Your task to perform on an android device: Open settings on Google Maps Image 0: 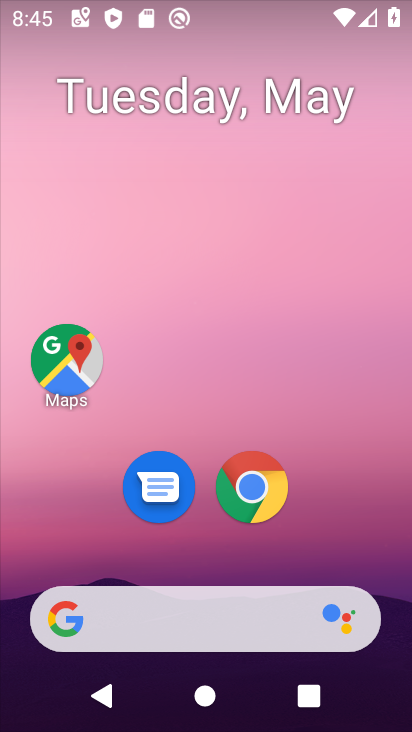
Step 0: drag from (376, 551) to (368, 204)
Your task to perform on an android device: Open settings on Google Maps Image 1: 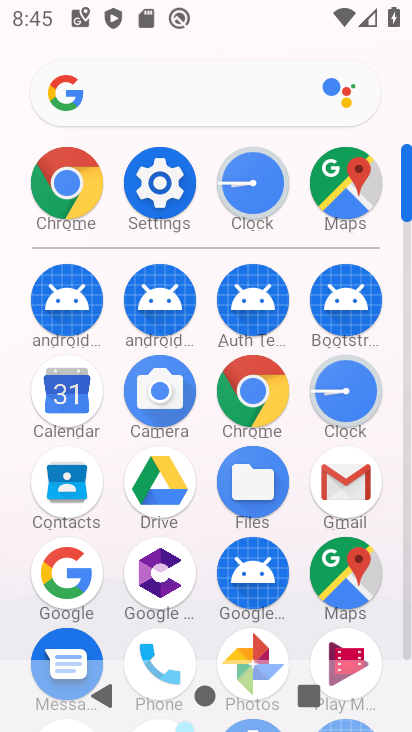
Step 1: click (359, 574)
Your task to perform on an android device: Open settings on Google Maps Image 2: 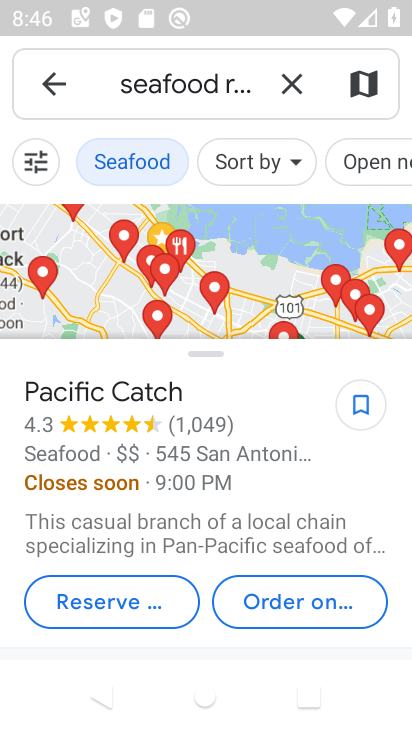
Step 2: press back button
Your task to perform on an android device: Open settings on Google Maps Image 3: 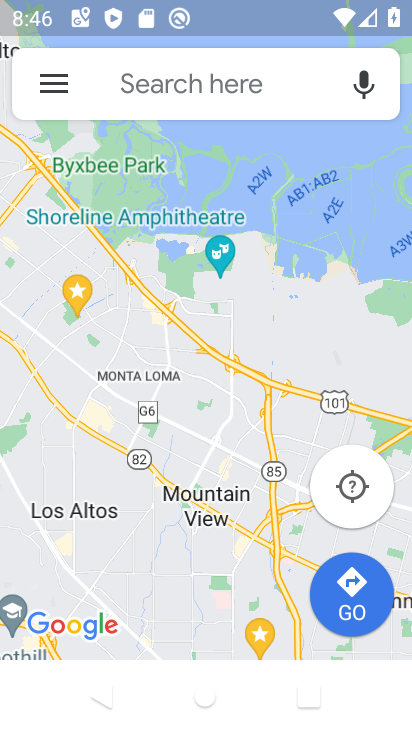
Step 3: click (59, 88)
Your task to perform on an android device: Open settings on Google Maps Image 4: 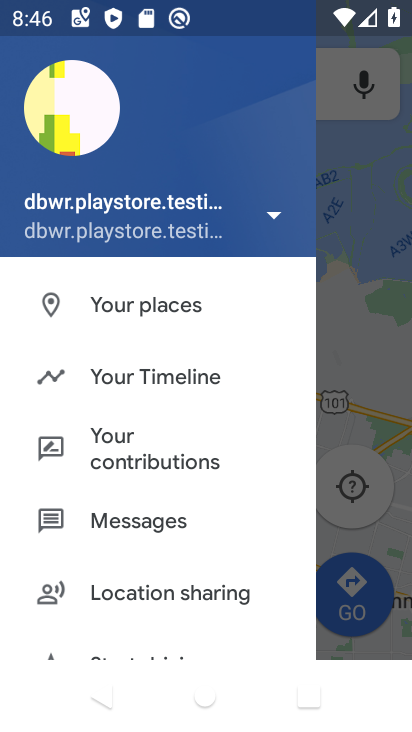
Step 4: drag from (241, 489) to (249, 377)
Your task to perform on an android device: Open settings on Google Maps Image 5: 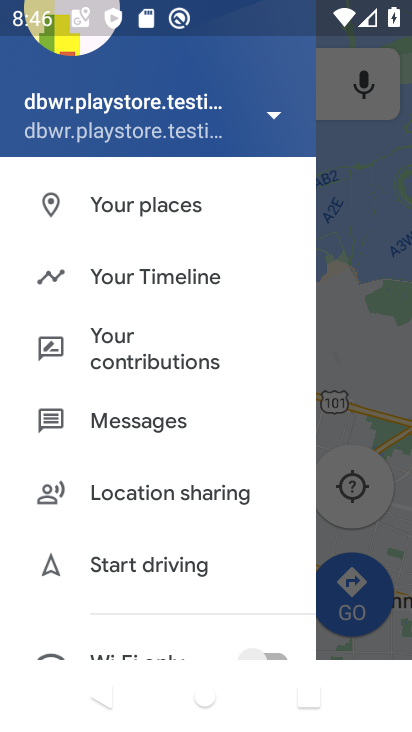
Step 5: drag from (265, 489) to (262, 369)
Your task to perform on an android device: Open settings on Google Maps Image 6: 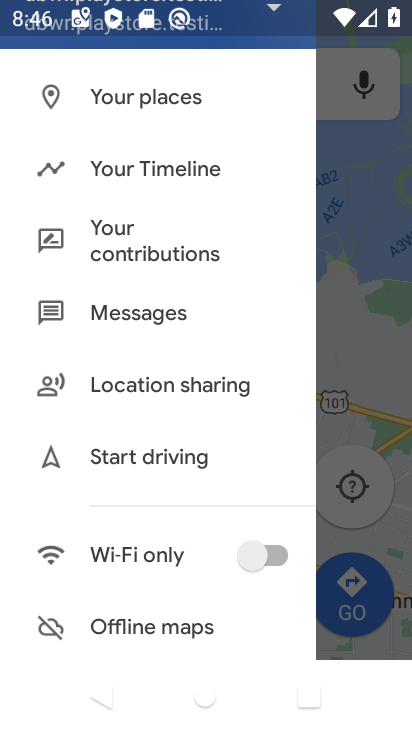
Step 6: drag from (246, 481) to (244, 393)
Your task to perform on an android device: Open settings on Google Maps Image 7: 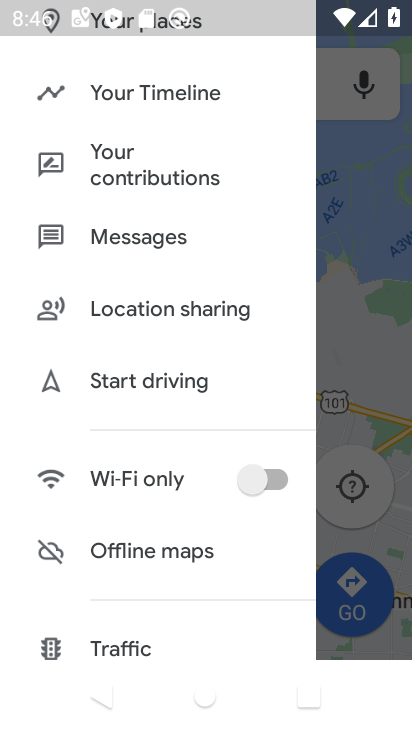
Step 7: drag from (215, 480) to (210, 366)
Your task to perform on an android device: Open settings on Google Maps Image 8: 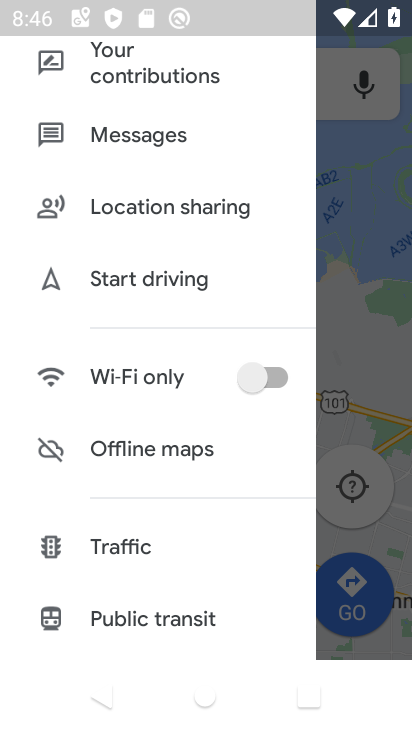
Step 8: drag from (234, 499) to (239, 384)
Your task to perform on an android device: Open settings on Google Maps Image 9: 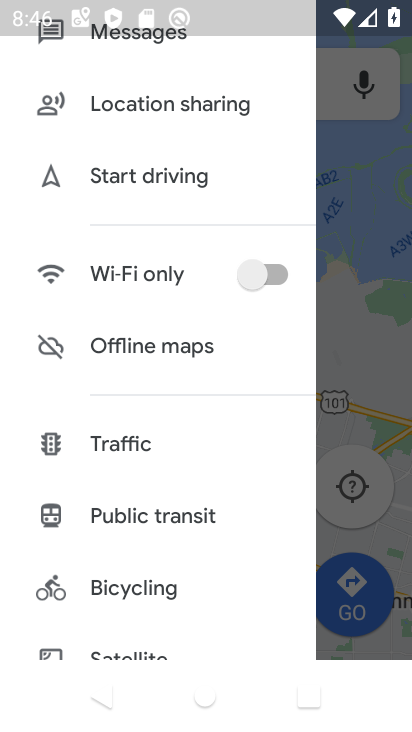
Step 9: drag from (250, 476) to (247, 380)
Your task to perform on an android device: Open settings on Google Maps Image 10: 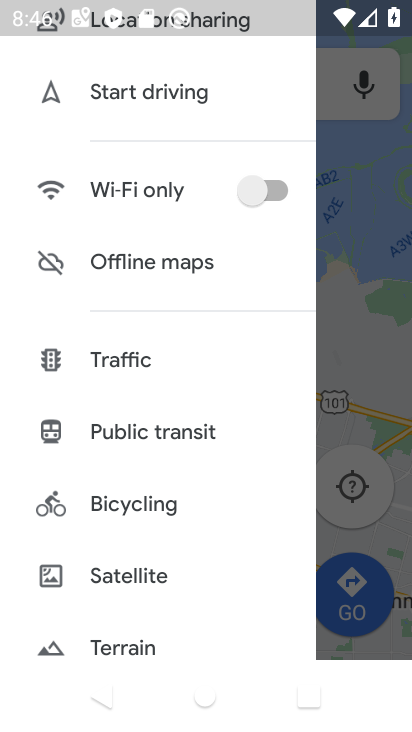
Step 10: drag from (250, 501) to (252, 378)
Your task to perform on an android device: Open settings on Google Maps Image 11: 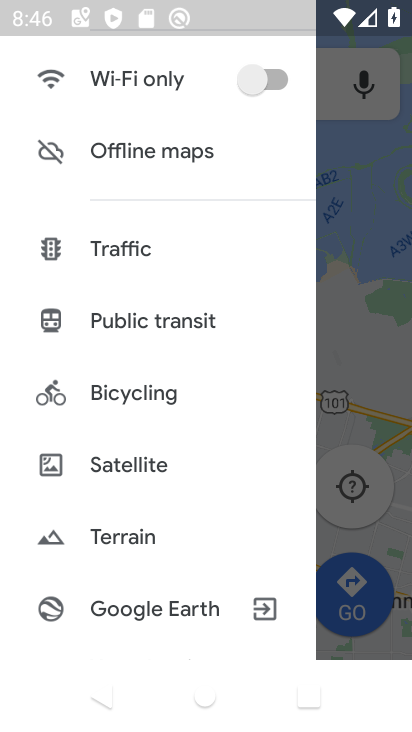
Step 11: drag from (249, 469) to (248, 336)
Your task to perform on an android device: Open settings on Google Maps Image 12: 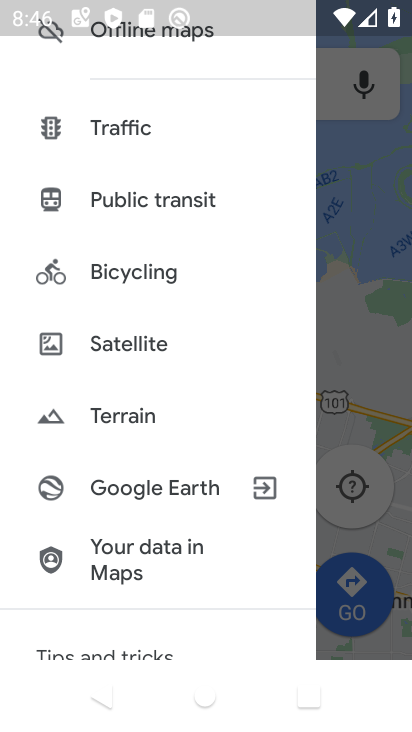
Step 12: drag from (233, 535) to (235, 384)
Your task to perform on an android device: Open settings on Google Maps Image 13: 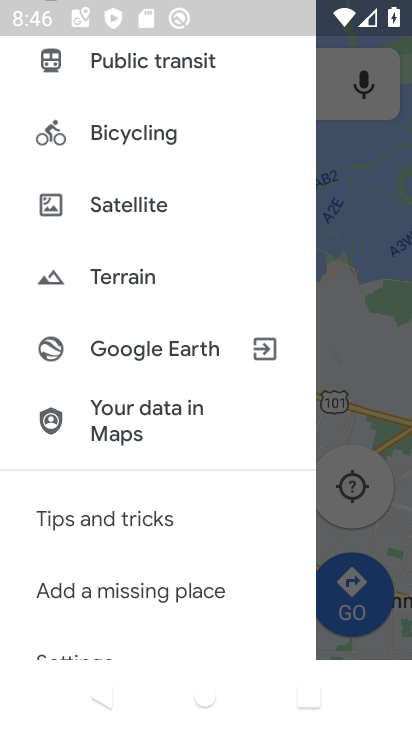
Step 13: drag from (235, 548) to (238, 397)
Your task to perform on an android device: Open settings on Google Maps Image 14: 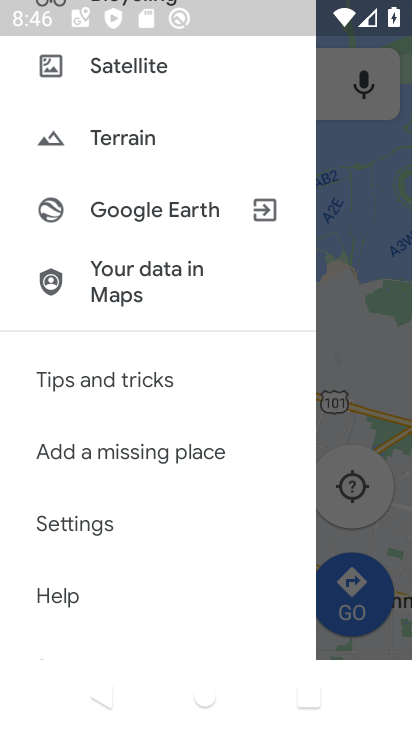
Step 14: click (93, 521)
Your task to perform on an android device: Open settings on Google Maps Image 15: 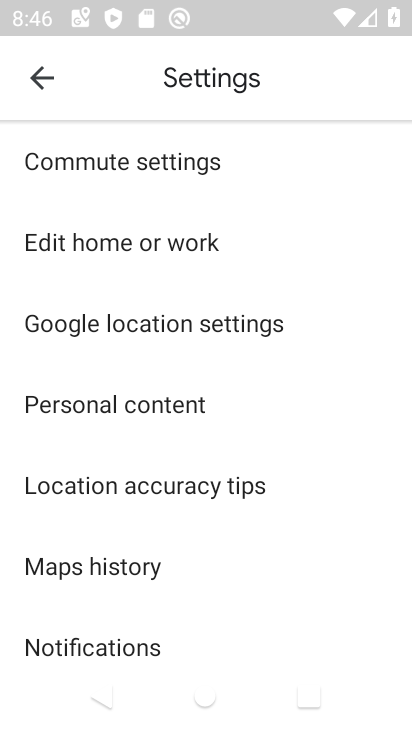
Step 15: task complete